Your task to perform on an android device: Open calendar and show me the second week of next month Image 0: 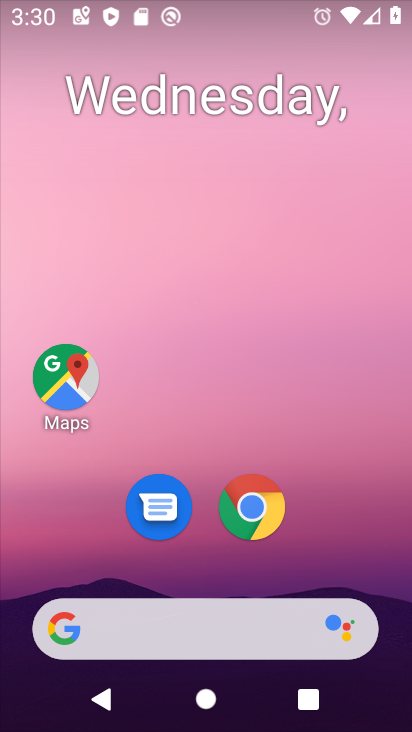
Step 0: drag from (358, 614) to (333, 8)
Your task to perform on an android device: Open calendar and show me the second week of next month Image 1: 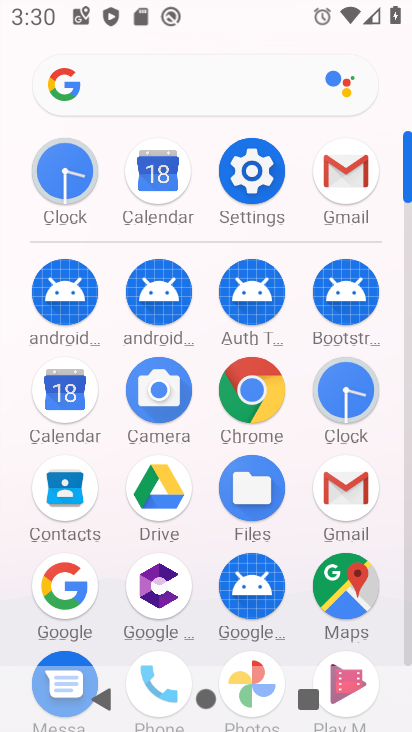
Step 1: click (160, 180)
Your task to perform on an android device: Open calendar and show me the second week of next month Image 2: 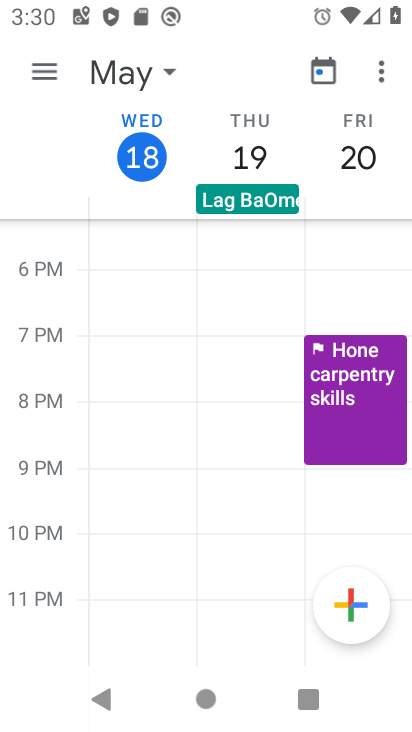
Step 2: click (129, 77)
Your task to perform on an android device: Open calendar and show me the second week of next month Image 3: 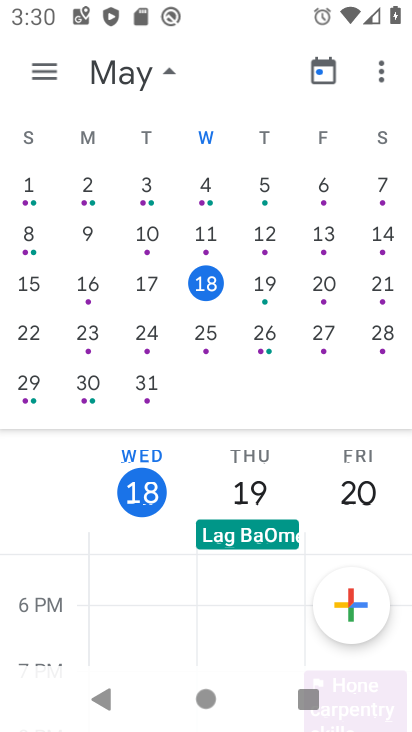
Step 3: drag from (353, 335) to (7, 367)
Your task to perform on an android device: Open calendar and show me the second week of next month Image 4: 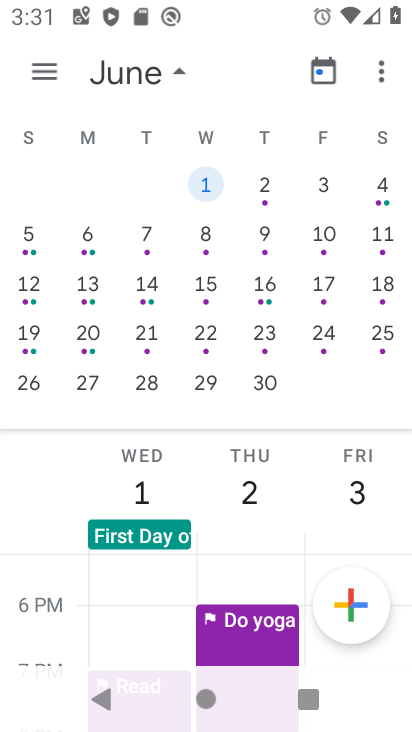
Step 4: click (41, 66)
Your task to perform on an android device: Open calendar and show me the second week of next month Image 5: 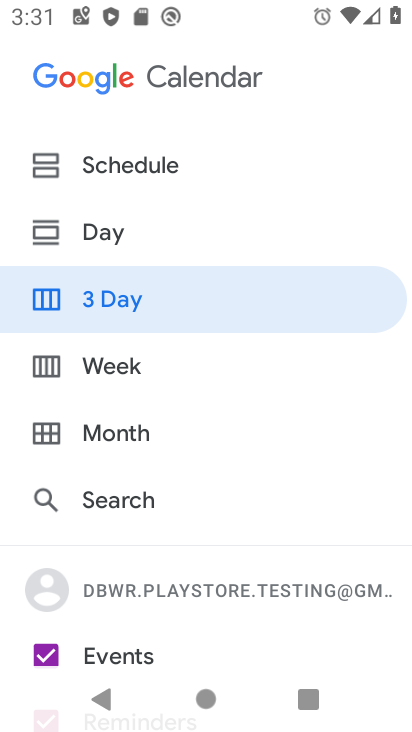
Step 5: click (94, 353)
Your task to perform on an android device: Open calendar and show me the second week of next month Image 6: 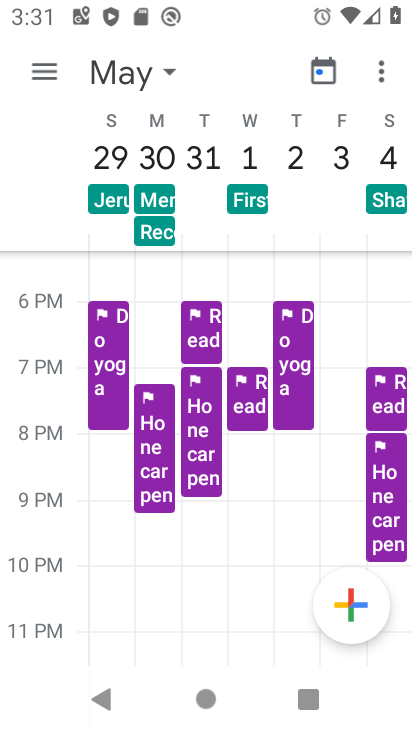
Step 6: click (148, 66)
Your task to perform on an android device: Open calendar and show me the second week of next month Image 7: 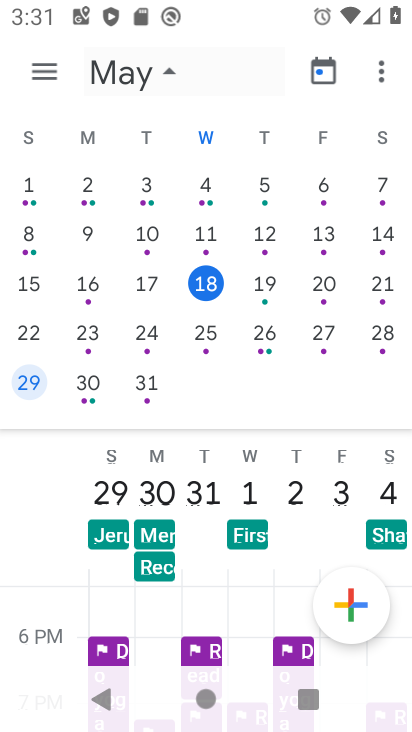
Step 7: click (148, 66)
Your task to perform on an android device: Open calendar and show me the second week of next month Image 8: 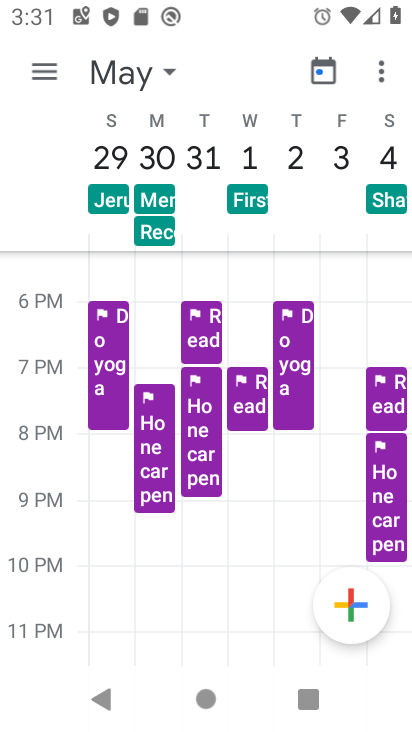
Step 8: drag from (148, 66) to (3, 118)
Your task to perform on an android device: Open calendar and show me the second week of next month Image 9: 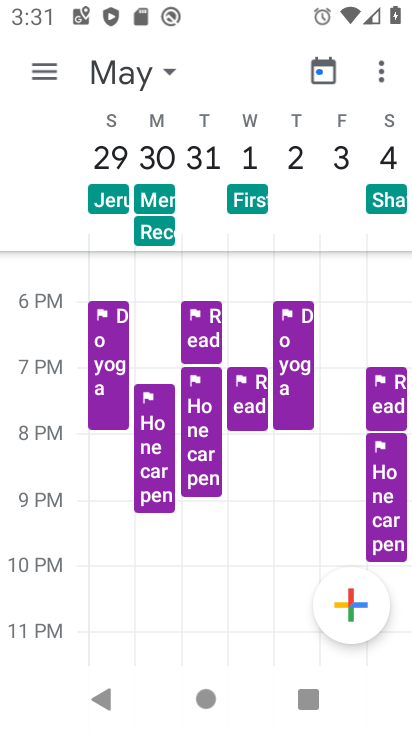
Step 9: click (147, 75)
Your task to perform on an android device: Open calendar and show me the second week of next month Image 10: 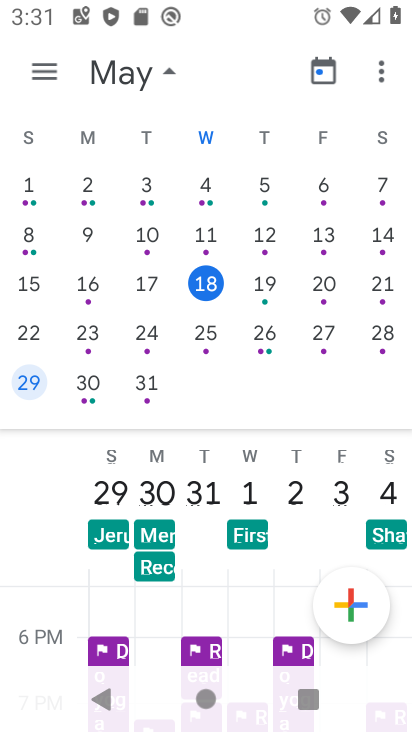
Step 10: drag from (195, 157) to (18, 131)
Your task to perform on an android device: Open calendar and show me the second week of next month Image 11: 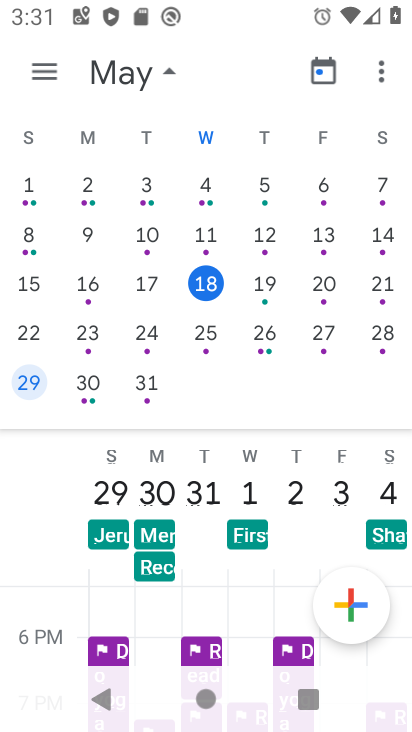
Step 11: drag from (349, 183) to (55, 148)
Your task to perform on an android device: Open calendar and show me the second week of next month Image 12: 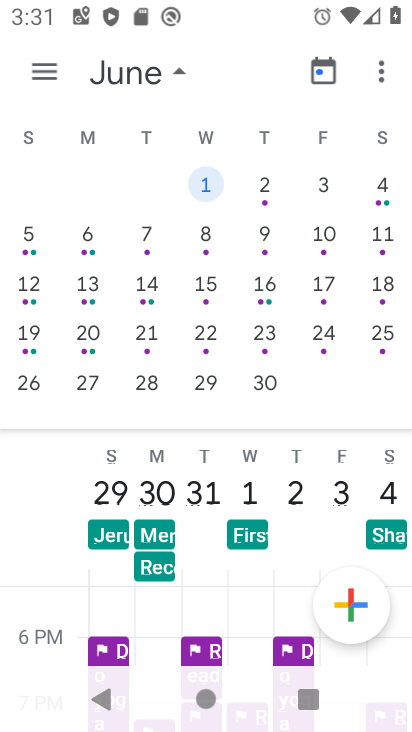
Step 12: click (267, 229)
Your task to perform on an android device: Open calendar and show me the second week of next month Image 13: 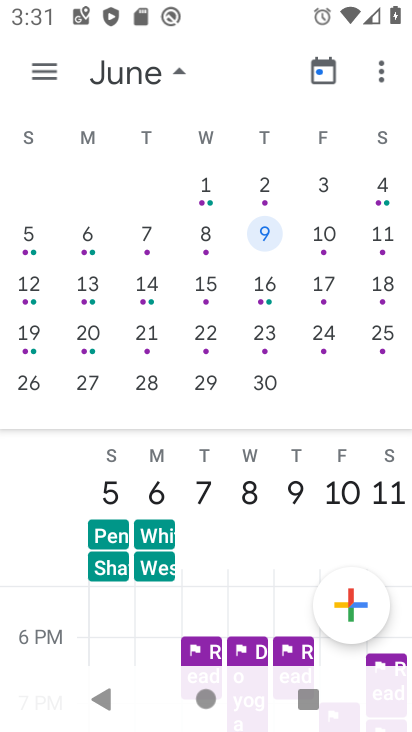
Step 13: task complete